Your task to perform on an android device: turn off notifications in google photos Image 0: 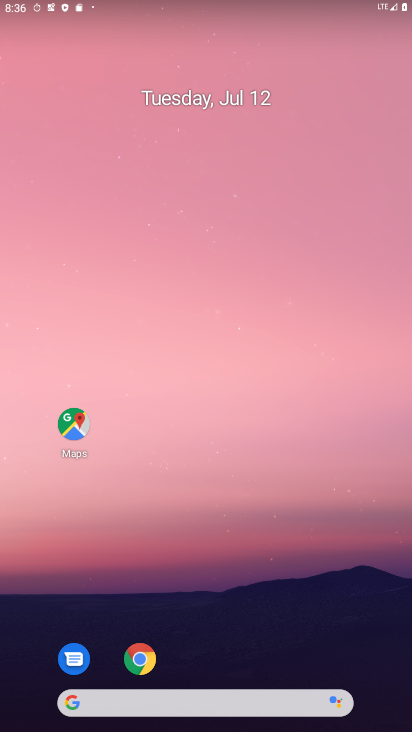
Step 0: drag from (372, 680) to (246, 0)
Your task to perform on an android device: turn off notifications in google photos Image 1: 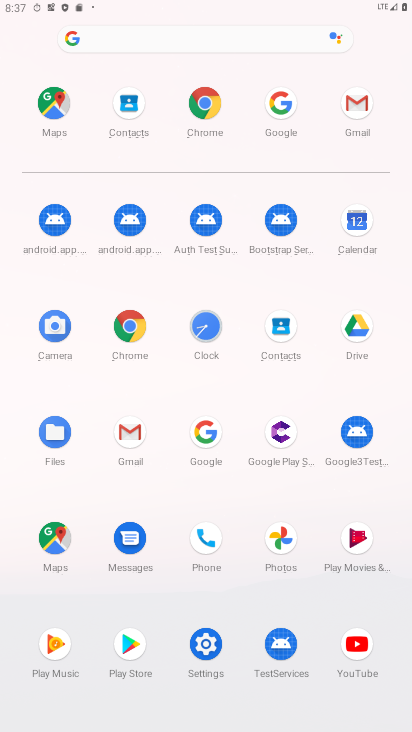
Step 1: click (280, 525)
Your task to perform on an android device: turn off notifications in google photos Image 2: 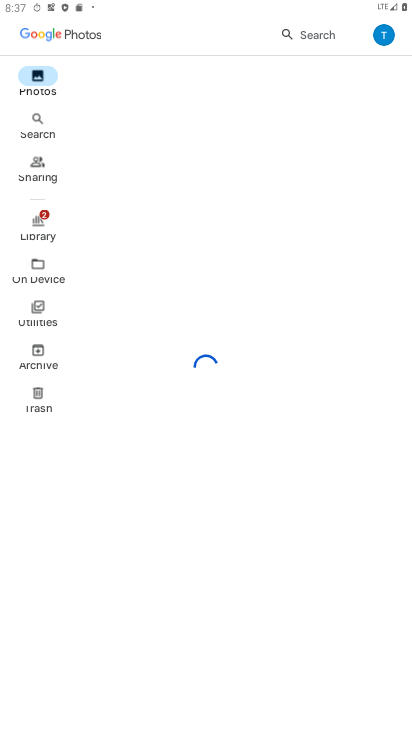
Step 2: click (376, 36)
Your task to perform on an android device: turn off notifications in google photos Image 3: 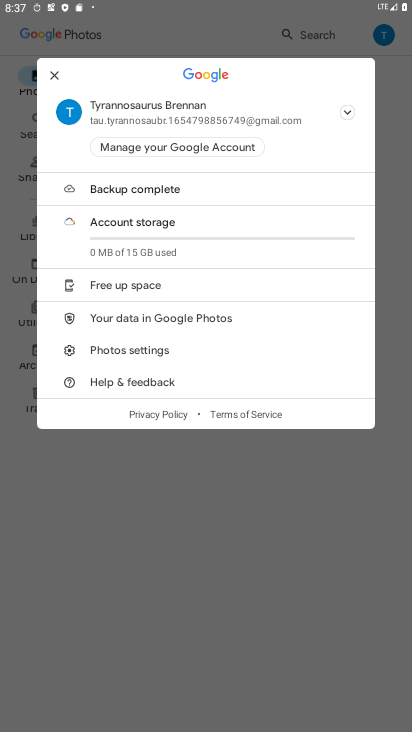
Step 3: click (156, 351)
Your task to perform on an android device: turn off notifications in google photos Image 4: 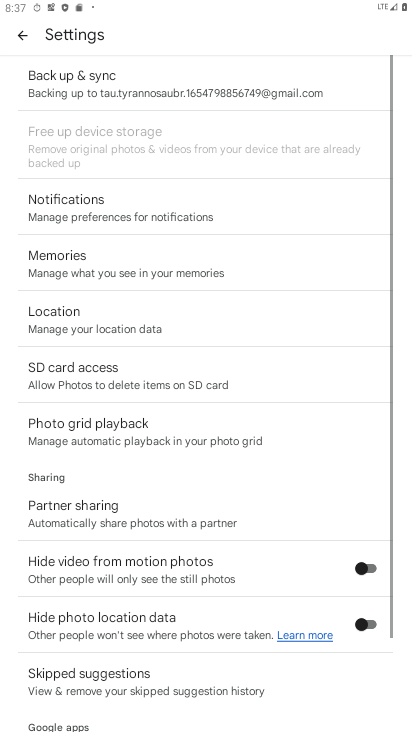
Step 4: click (80, 217)
Your task to perform on an android device: turn off notifications in google photos Image 5: 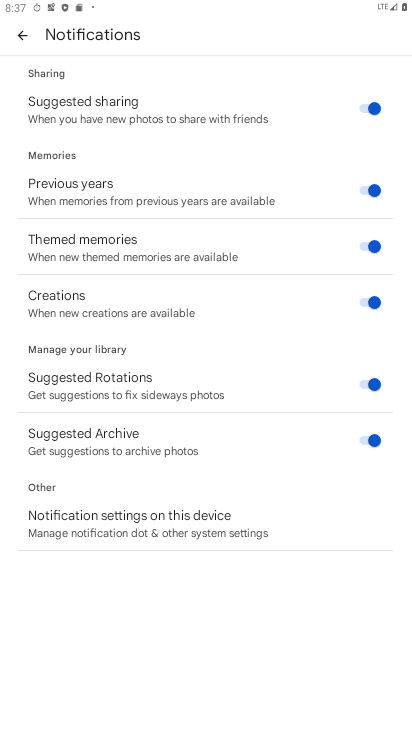
Step 5: click (352, 117)
Your task to perform on an android device: turn off notifications in google photos Image 6: 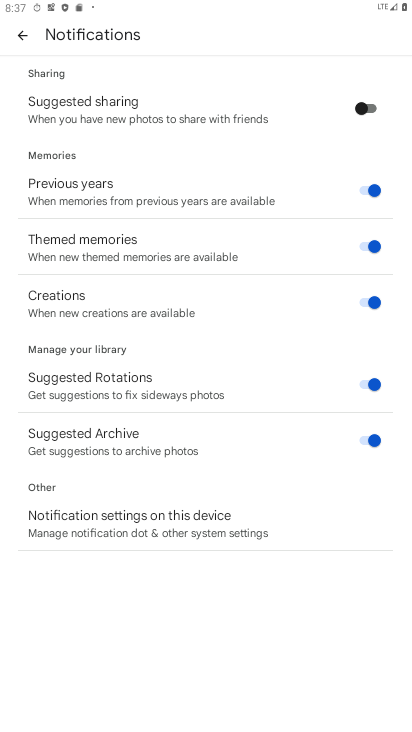
Step 6: task complete